Your task to perform on an android device: Open Youtube and go to "Your channel" Image 0: 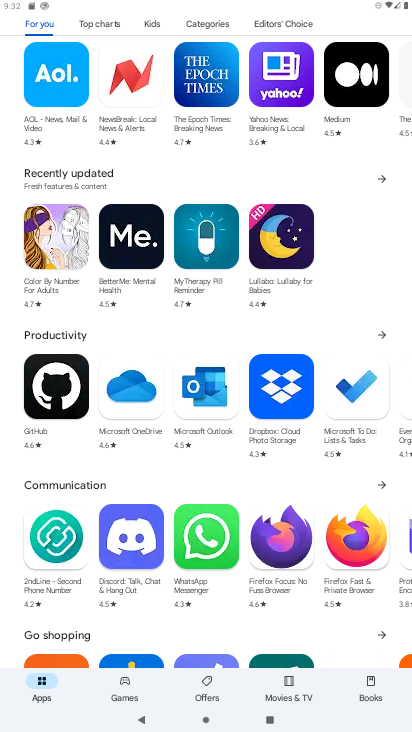
Step 0: press home button
Your task to perform on an android device: Open Youtube and go to "Your channel" Image 1: 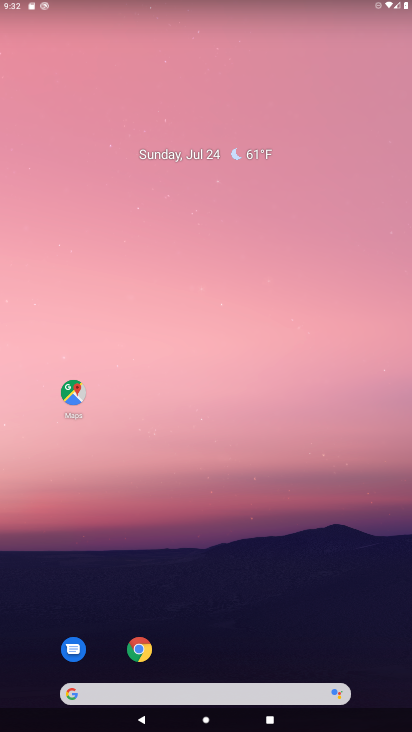
Step 1: drag from (232, 641) to (178, 87)
Your task to perform on an android device: Open Youtube and go to "Your channel" Image 2: 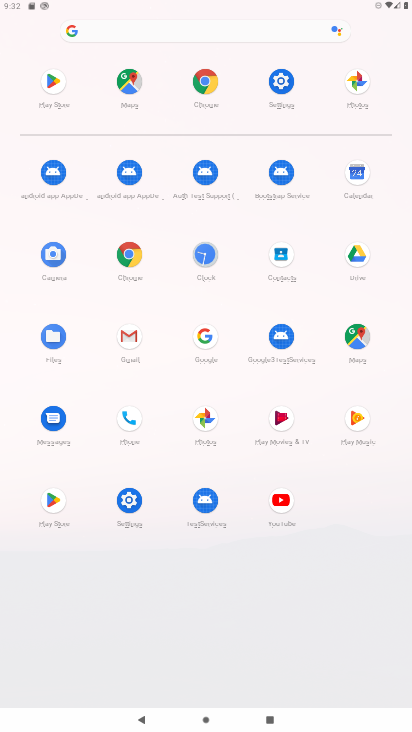
Step 2: click (268, 514)
Your task to perform on an android device: Open Youtube and go to "Your channel" Image 3: 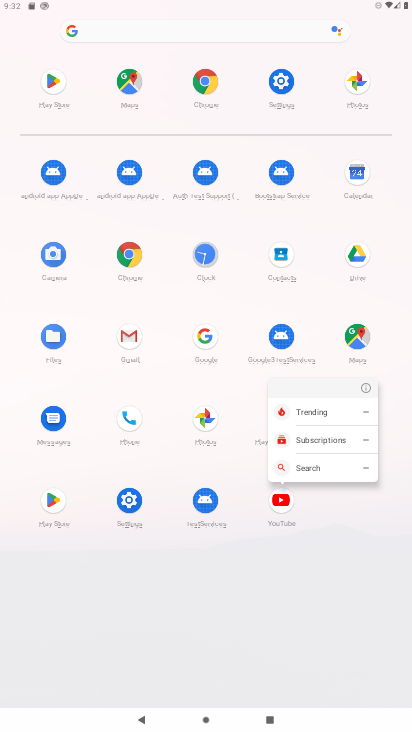
Step 3: click (273, 507)
Your task to perform on an android device: Open Youtube and go to "Your channel" Image 4: 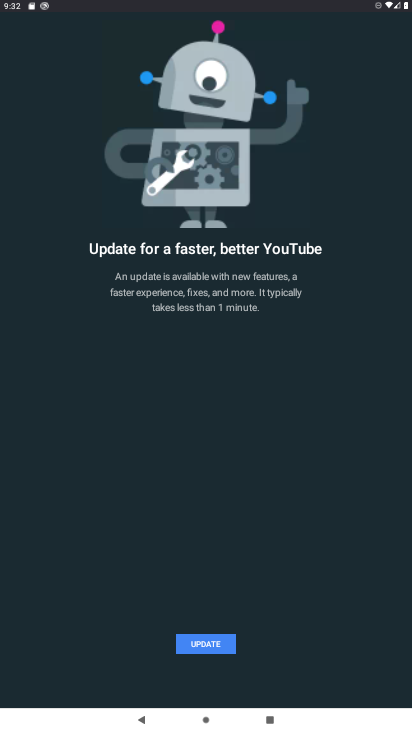
Step 4: click (206, 638)
Your task to perform on an android device: Open Youtube and go to "Your channel" Image 5: 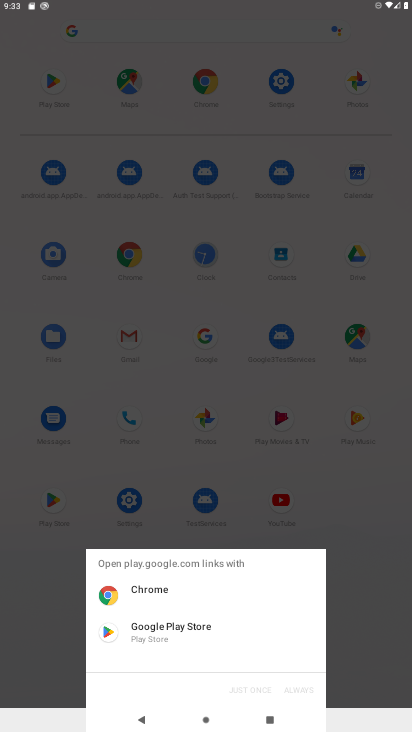
Step 5: click (206, 638)
Your task to perform on an android device: Open Youtube and go to "Your channel" Image 6: 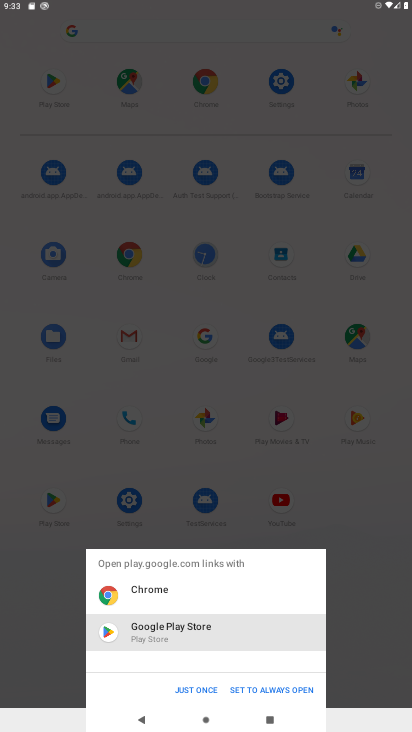
Step 6: click (189, 689)
Your task to perform on an android device: Open Youtube and go to "Your channel" Image 7: 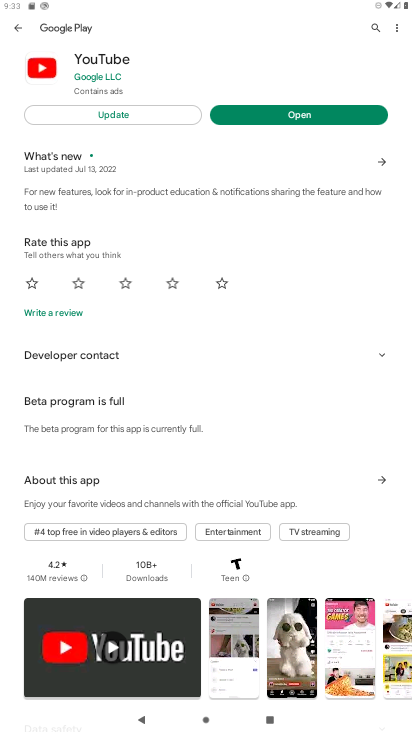
Step 7: click (122, 110)
Your task to perform on an android device: Open Youtube and go to "Your channel" Image 8: 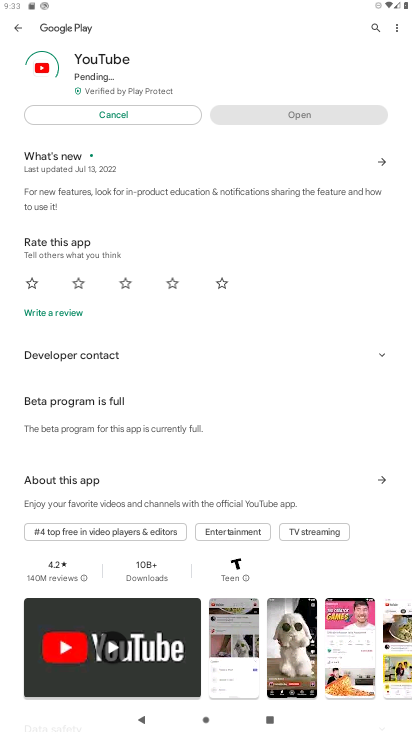
Step 8: task complete